Your task to perform on an android device: Open Wikipedia Image 0: 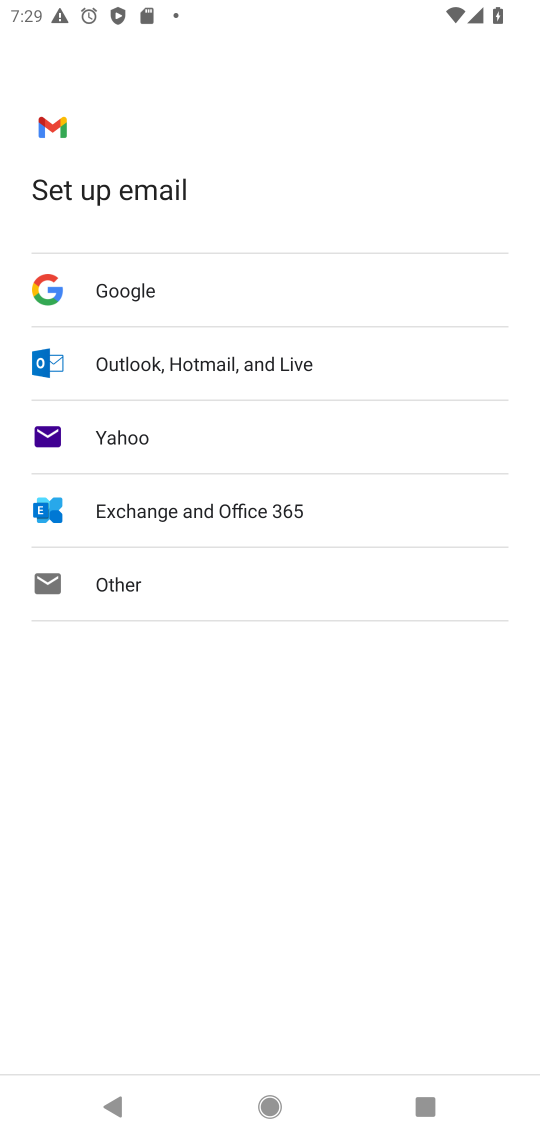
Step 0: press home button
Your task to perform on an android device: Open Wikipedia Image 1: 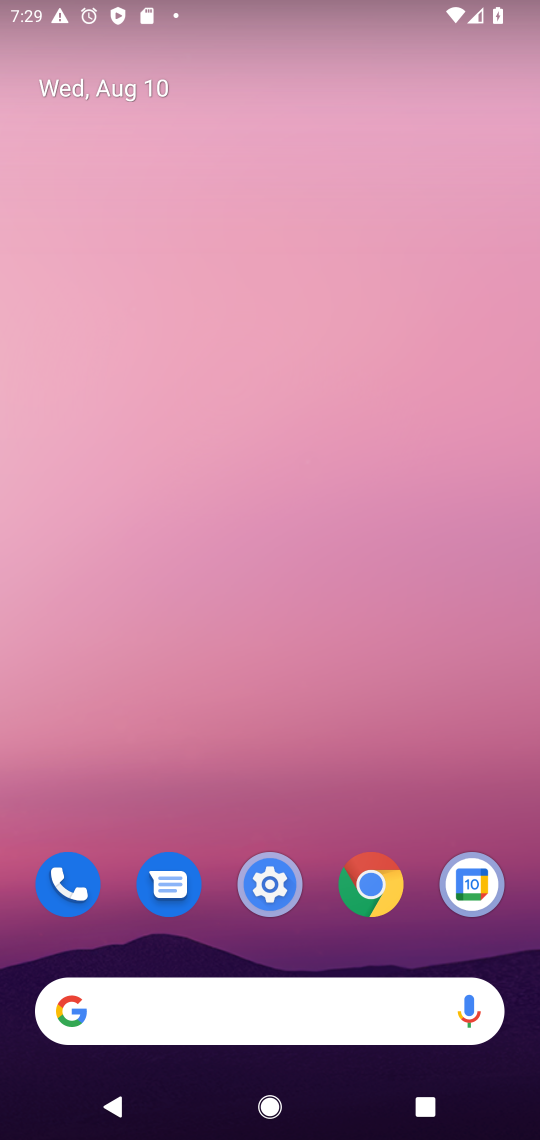
Step 1: click (200, 1002)
Your task to perform on an android device: Open Wikipedia Image 2: 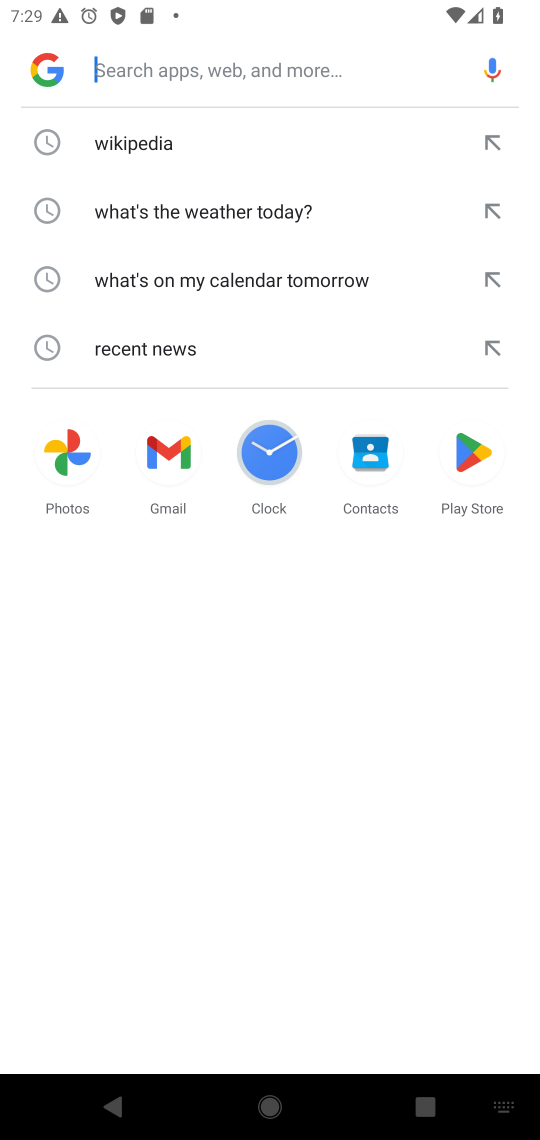
Step 2: click (133, 139)
Your task to perform on an android device: Open Wikipedia Image 3: 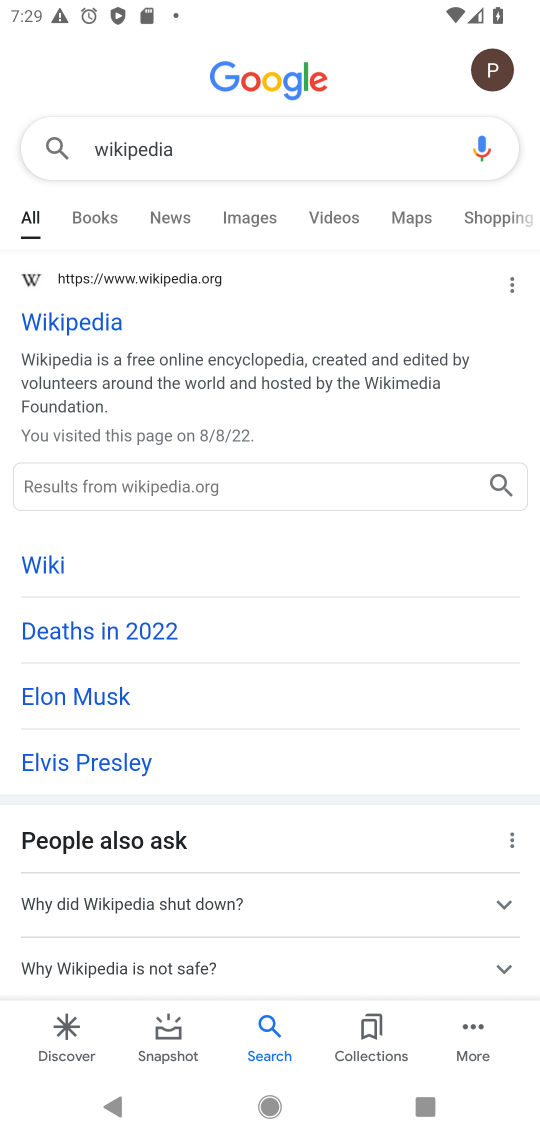
Step 3: task complete